Your task to perform on an android device: Search for corsair k70 on bestbuy.com, select the first entry, add it to the cart, then select checkout. Image 0: 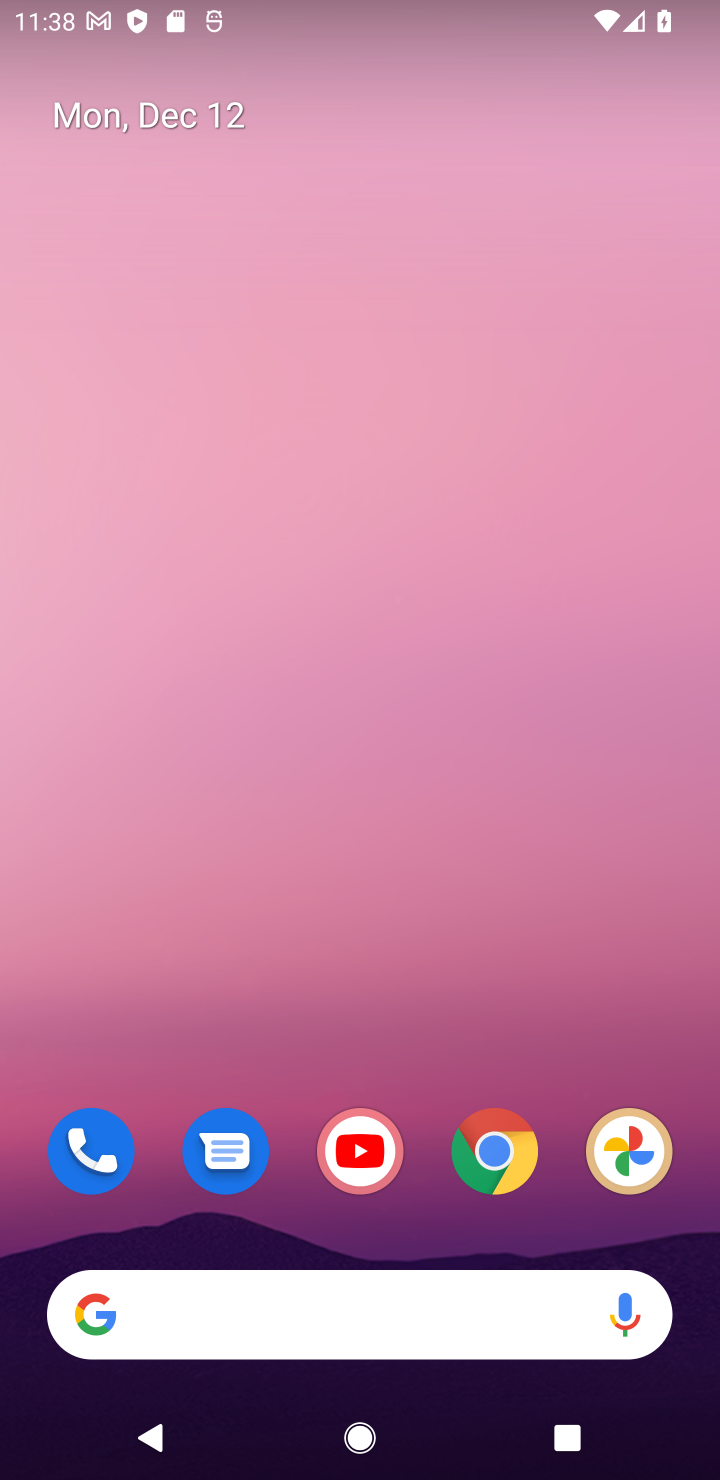
Step 0: press home button
Your task to perform on an android device: Search for corsair k70 on bestbuy.com, select the first entry, add it to the cart, then select checkout. Image 1: 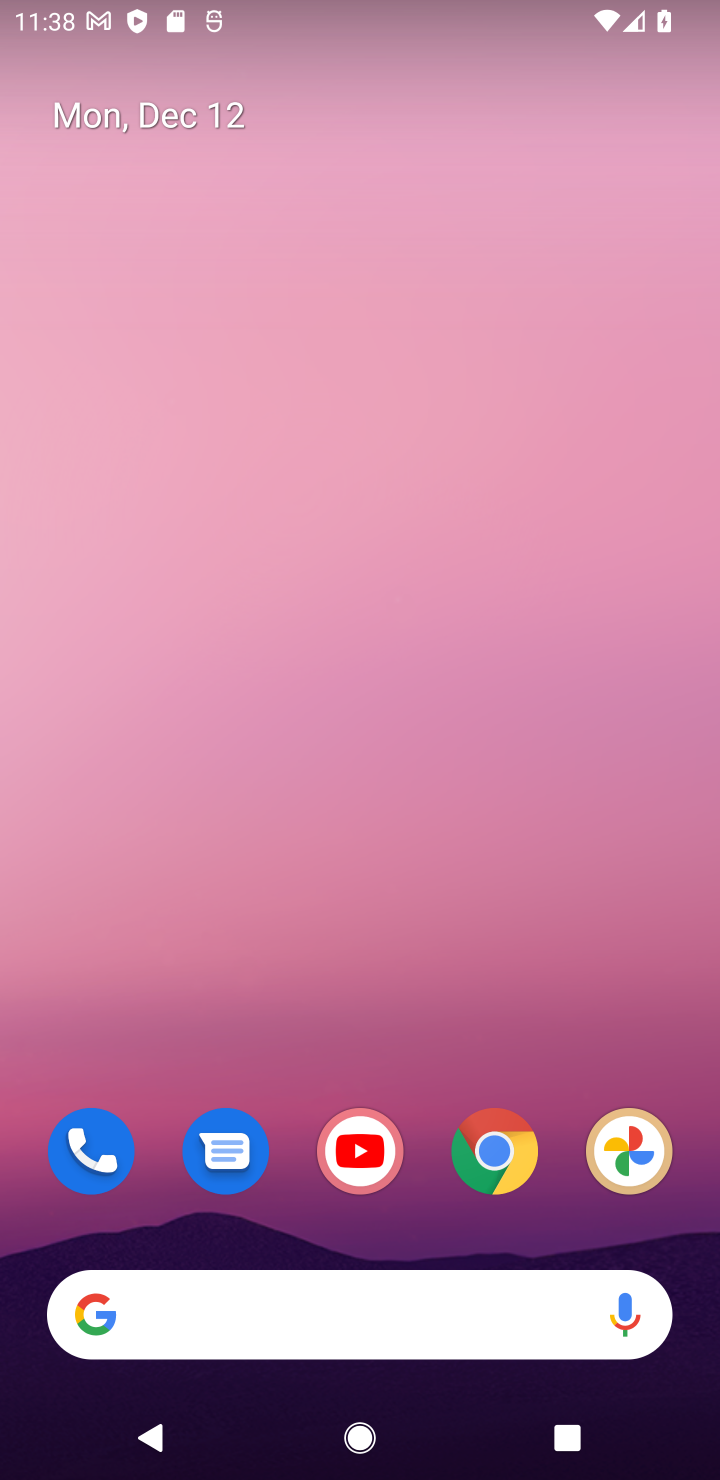
Step 1: drag from (283, 1100) to (290, 193)
Your task to perform on an android device: Search for corsair k70 on bestbuy.com, select the first entry, add it to the cart, then select checkout. Image 2: 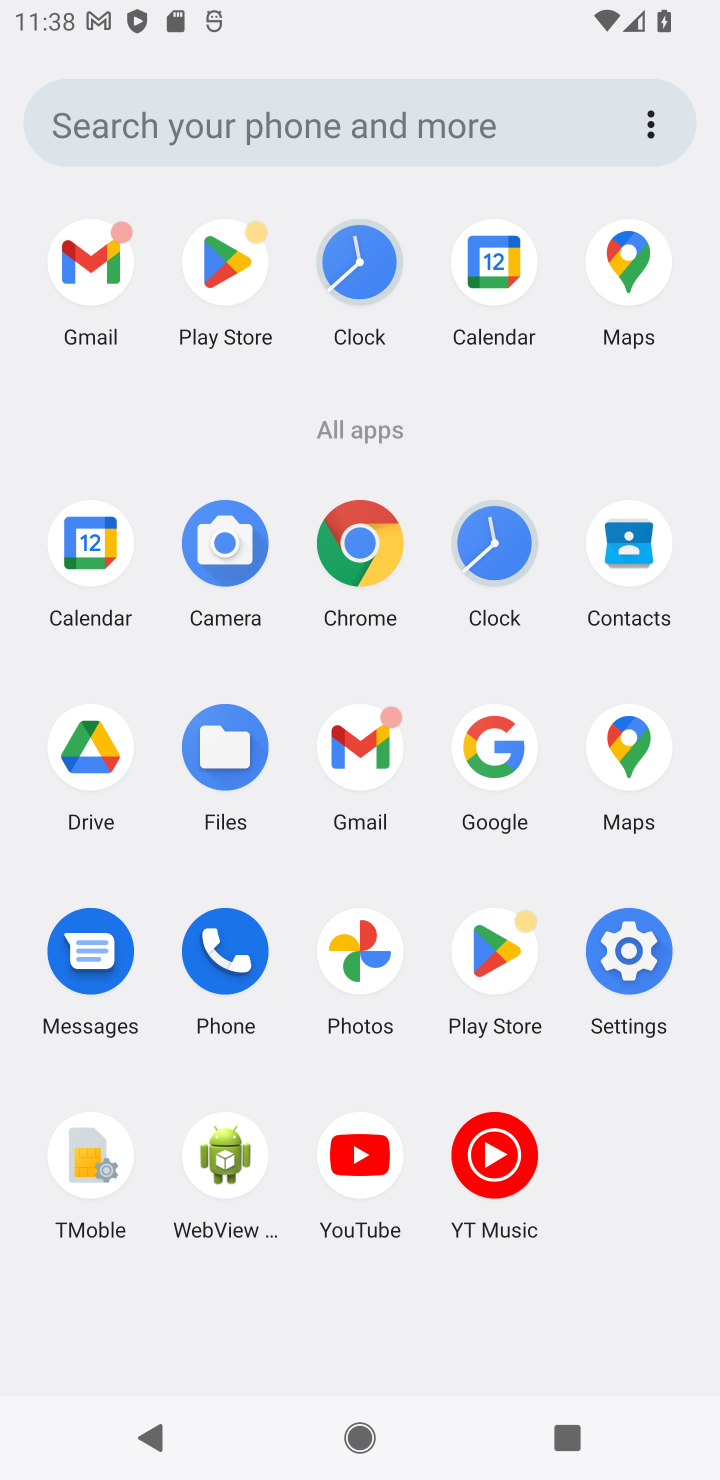
Step 2: click (475, 748)
Your task to perform on an android device: Search for corsair k70 on bestbuy.com, select the first entry, add it to the cart, then select checkout. Image 3: 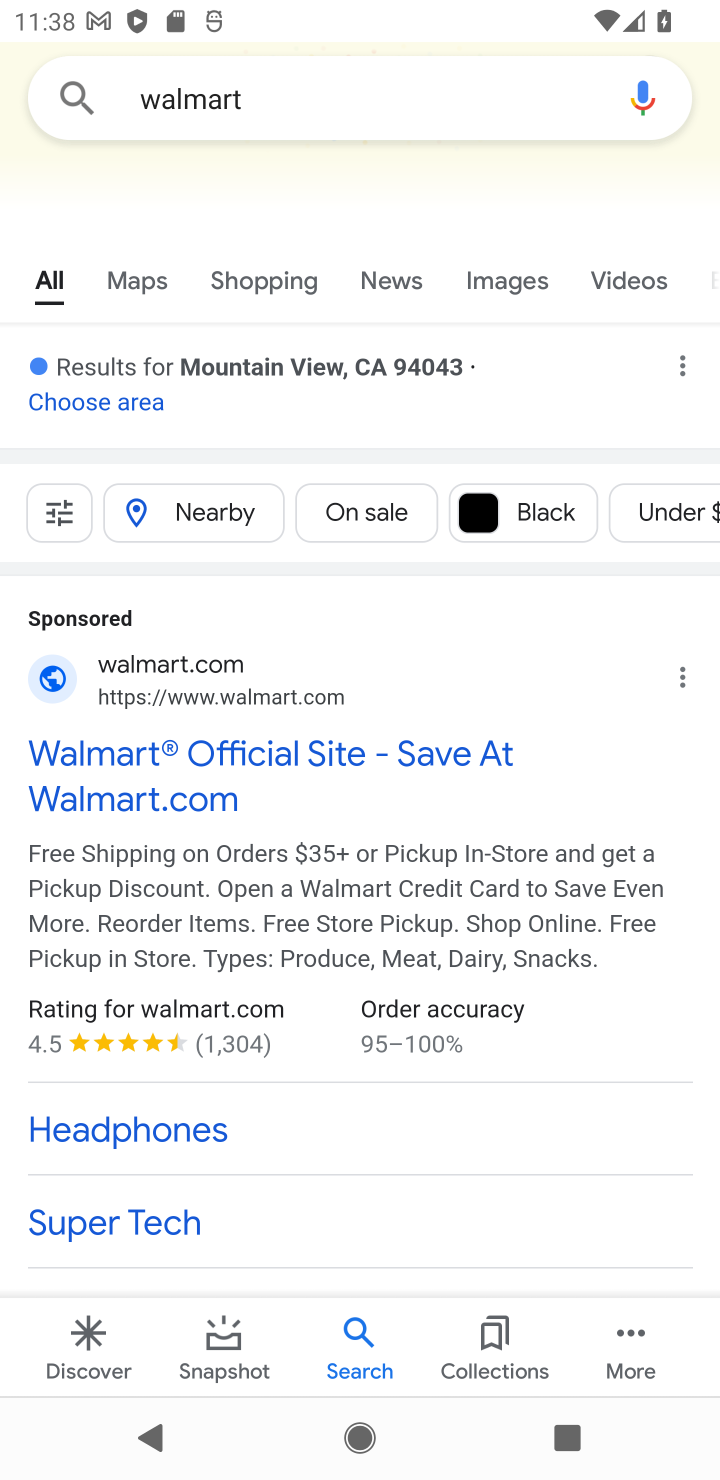
Step 3: click (249, 99)
Your task to perform on an android device: Search for corsair k70 on bestbuy.com, select the first entry, add it to the cart, then select checkout. Image 4: 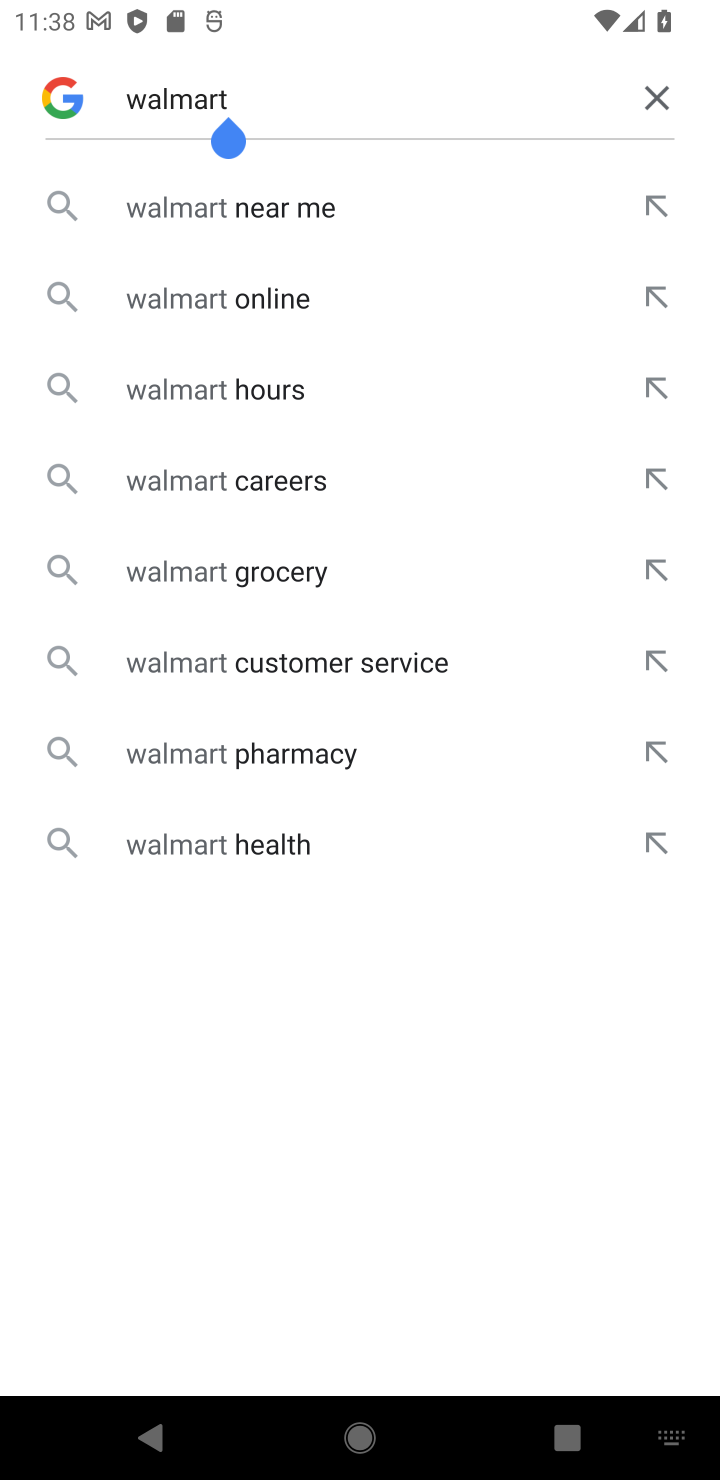
Step 4: click (657, 106)
Your task to perform on an android device: Search for corsair k70 on bestbuy.com, select the first entry, add it to the cart, then select checkout. Image 5: 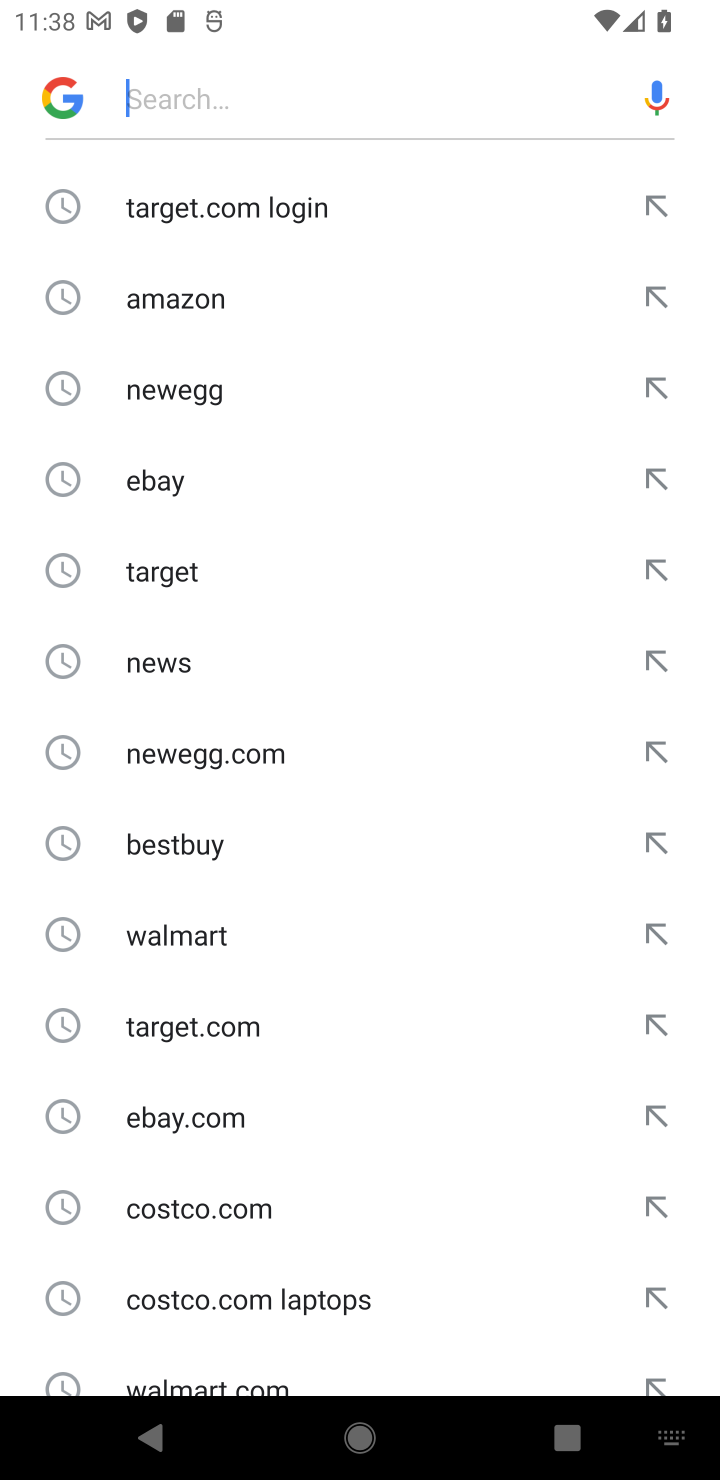
Step 5: click (174, 847)
Your task to perform on an android device: Search for corsair k70 on bestbuy.com, select the first entry, add it to the cart, then select checkout. Image 6: 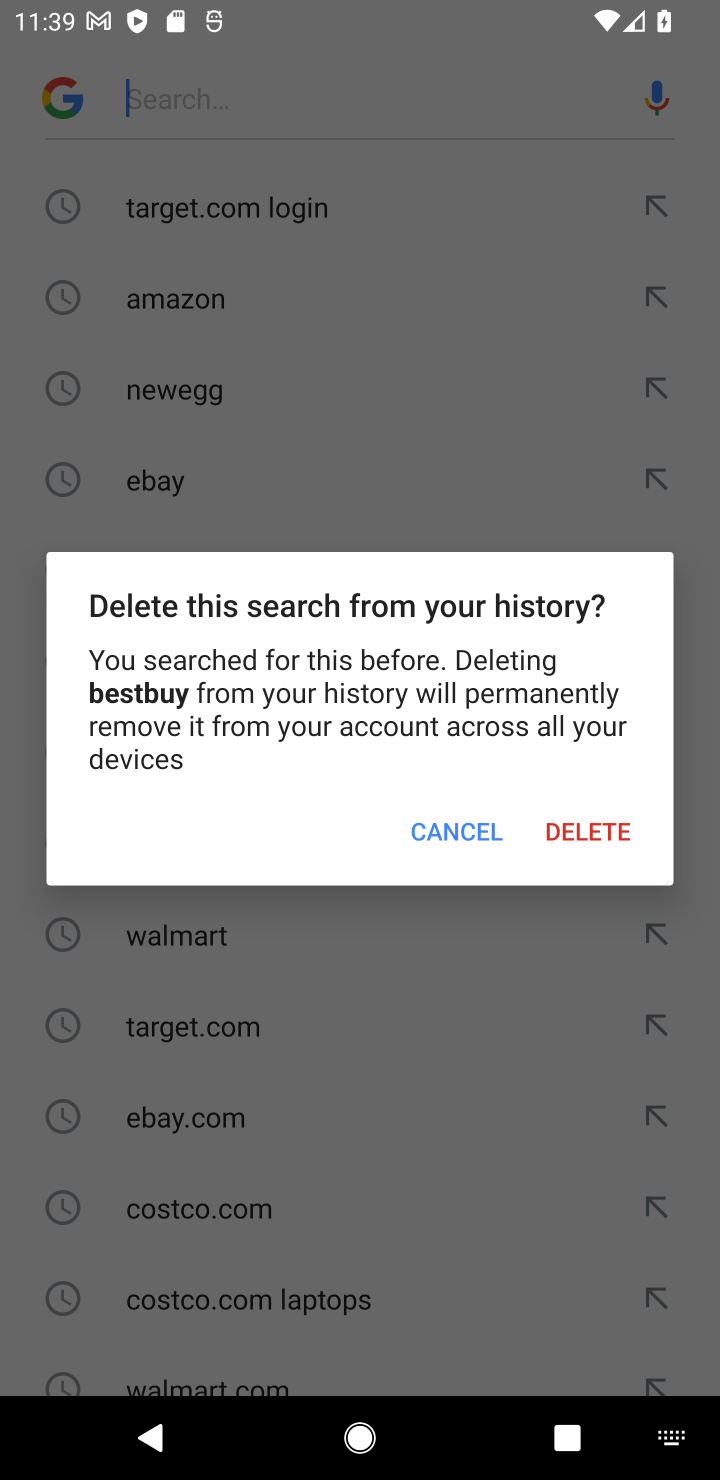
Step 6: click (482, 818)
Your task to perform on an android device: Search for corsair k70 on bestbuy.com, select the first entry, add it to the cart, then select checkout. Image 7: 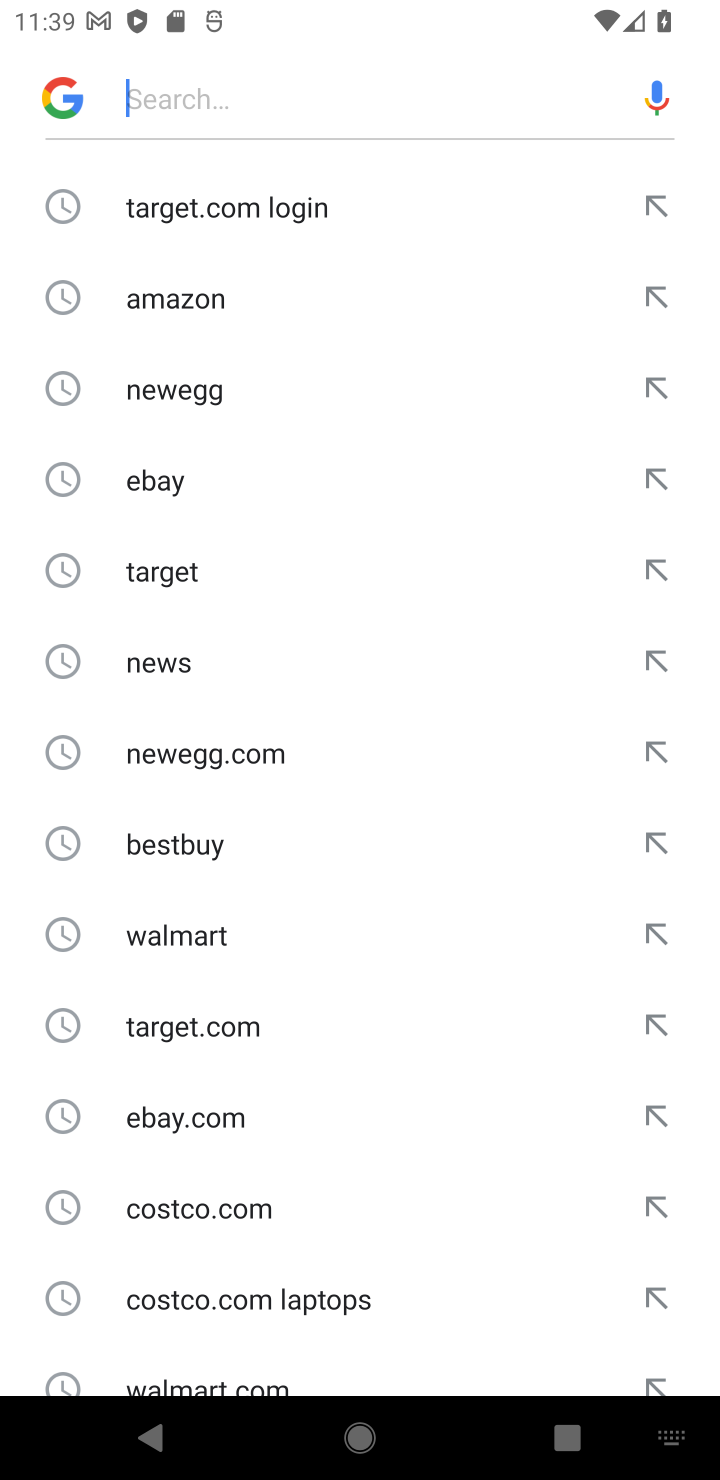
Step 7: click (192, 841)
Your task to perform on an android device: Search for corsair k70 on bestbuy.com, select the first entry, add it to the cart, then select checkout. Image 8: 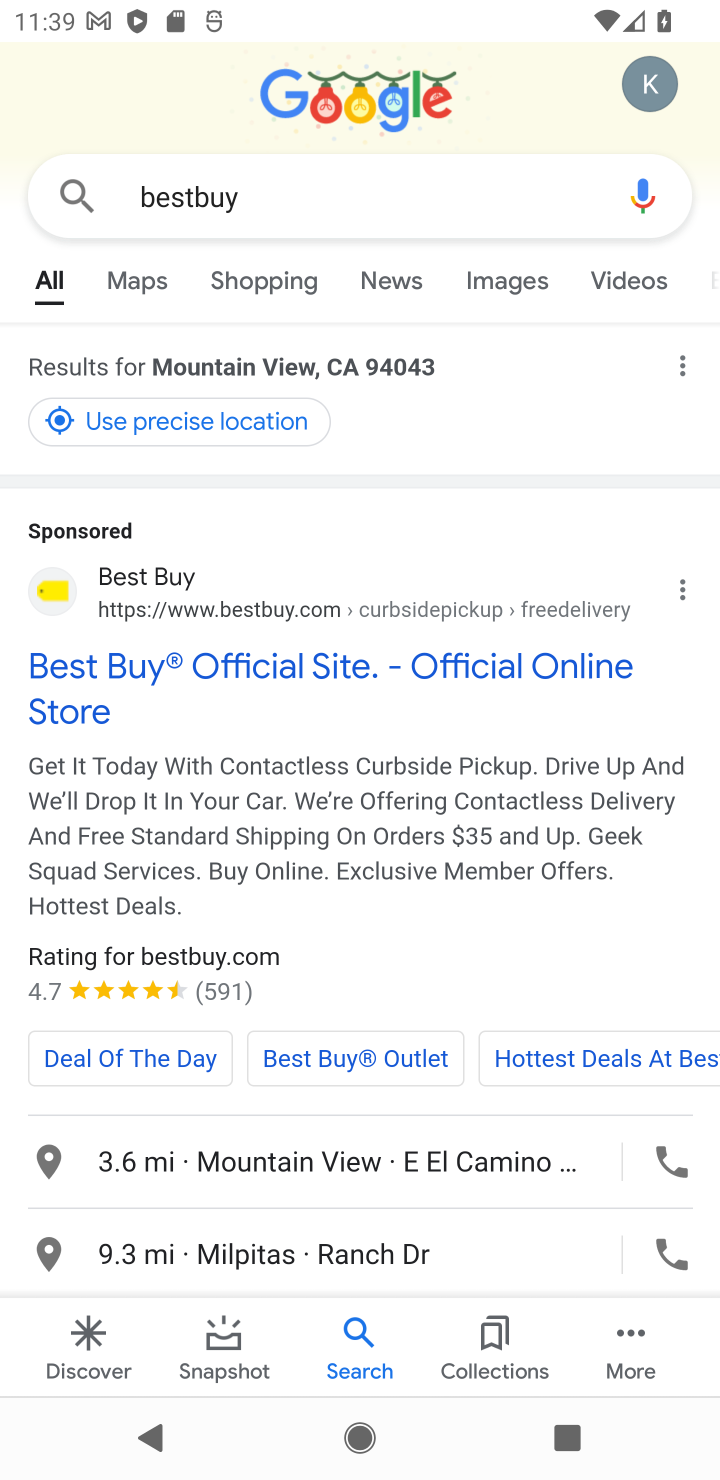
Step 8: click (201, 662)
Your task to perform on an android device: Search for corsair k70 on bestbuy.com, select the first entry, add it to the cart, then select checkout. Image 9: 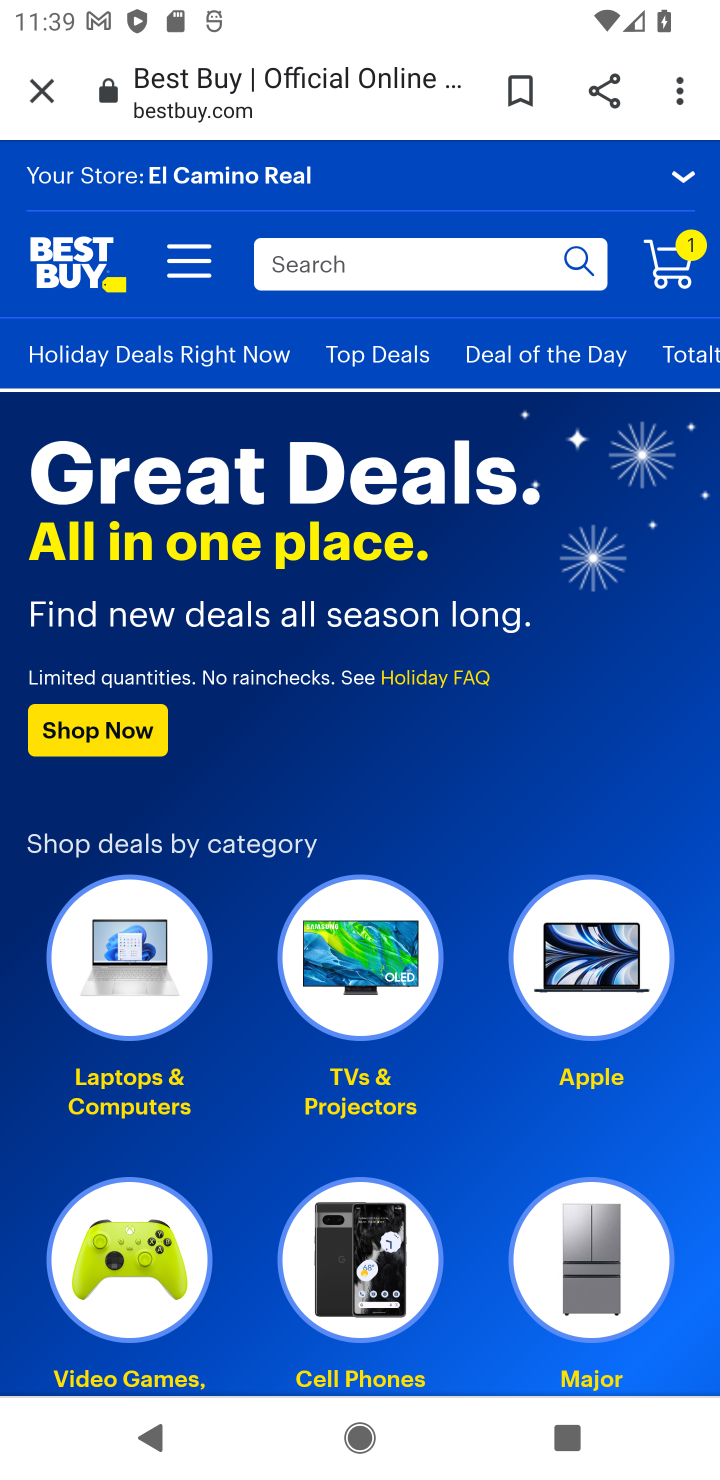
Step 9: click (414, 269)
Your task to perform on an android device: Search for corsair k70 on bestbuy.com, select the first entry, add it to the cart, then select checkout. Image 10: 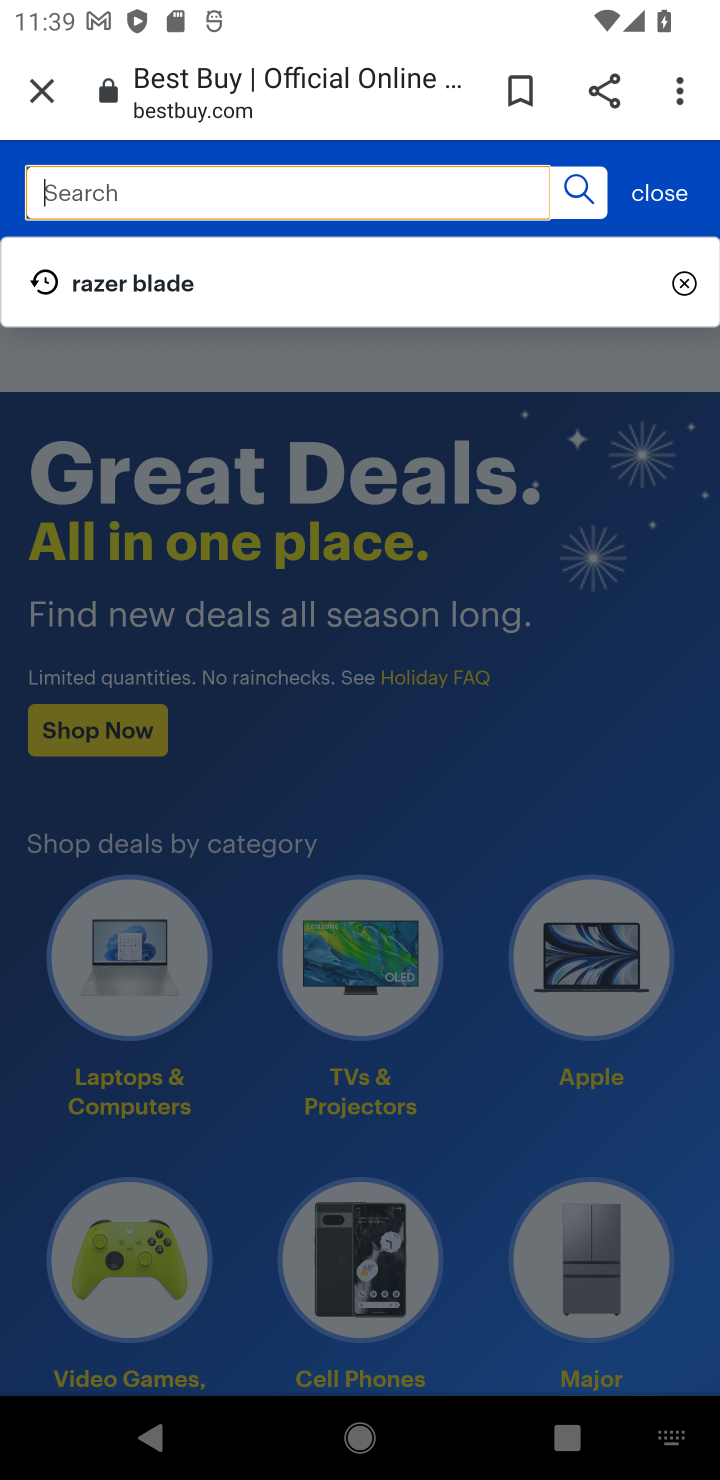
Step 10: type "corsair k70"
Your task to perform on an android device: Search for corsair k70 on bestbuy.com, select the first entry, add it to the cart, then select checkout. Image 11: 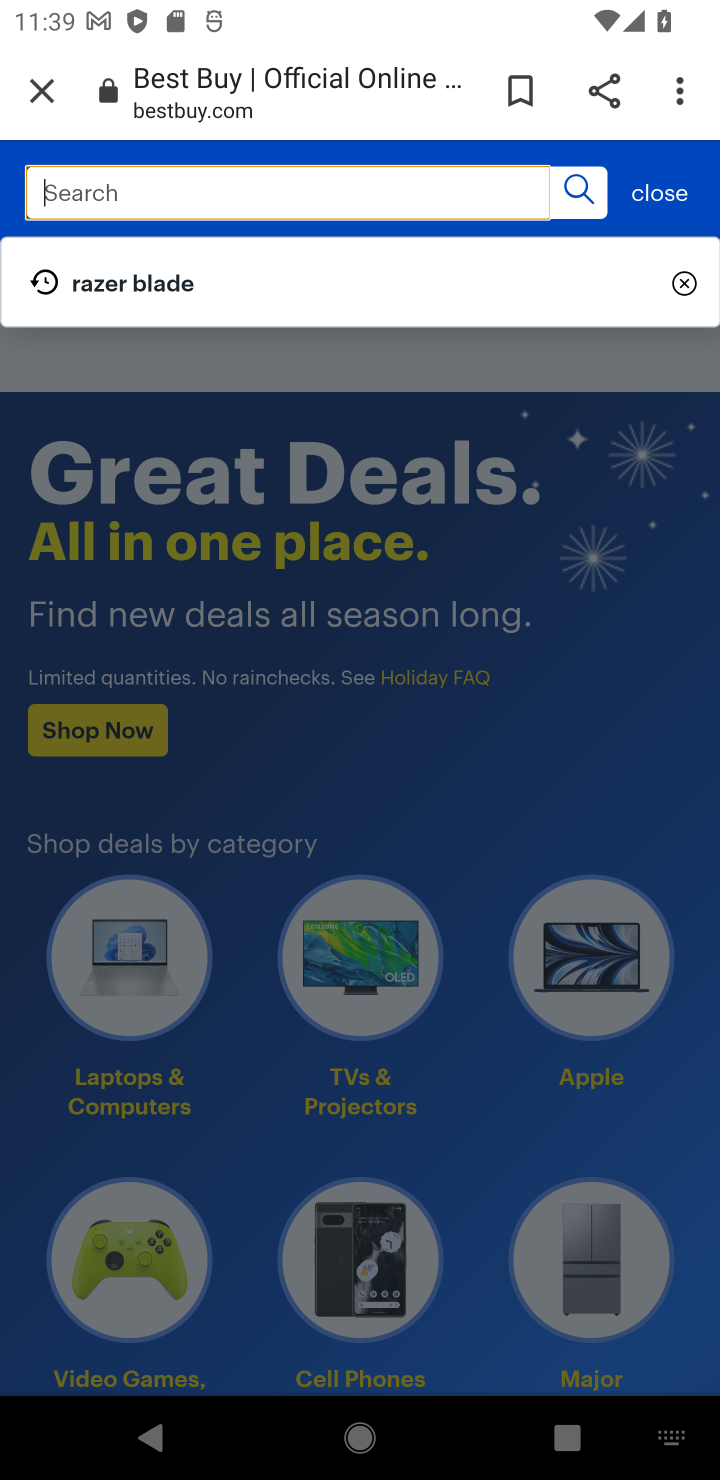
Step 11: click (578, 194)
Your task to perform on an android device: Search for corsair k70 on bestbuy.com, select the first entry, add it to the cart, then select checkout. Image 12: 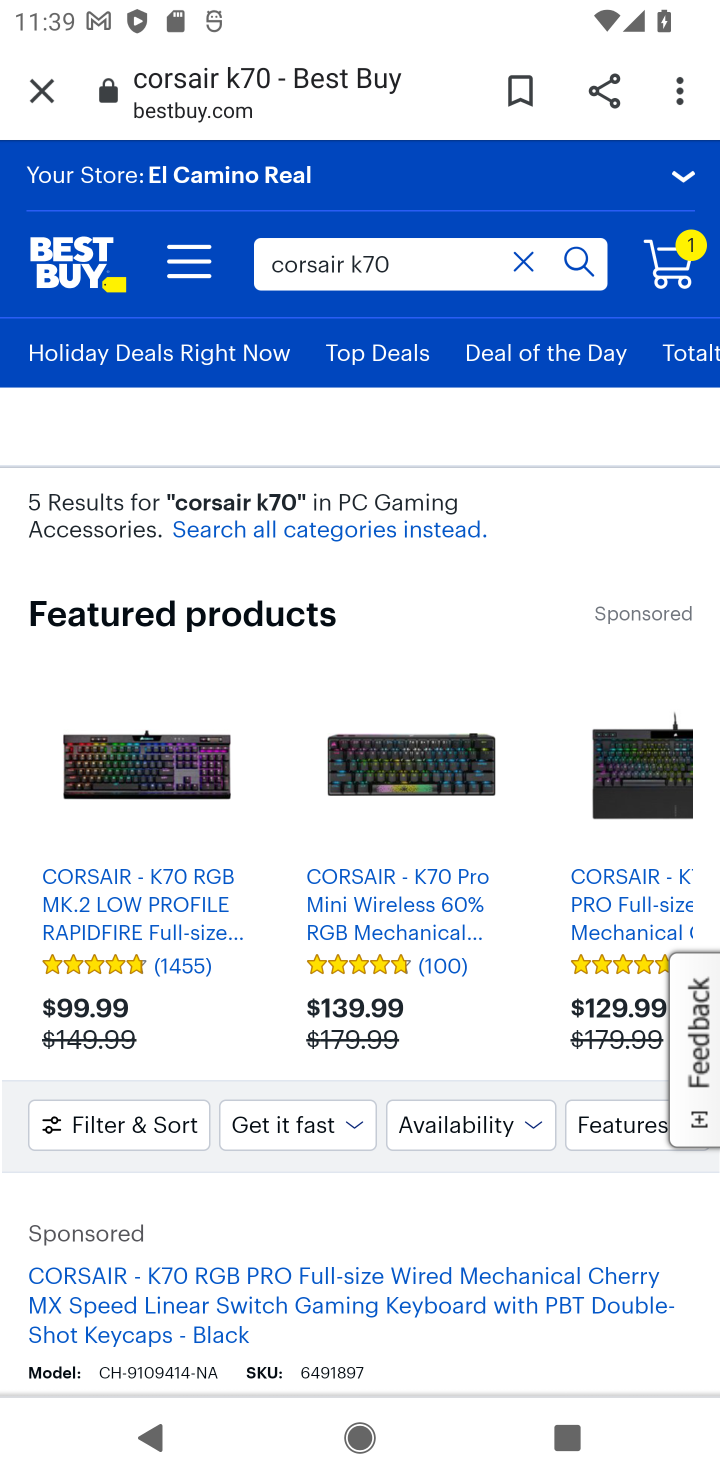
Step 12: drag from (381, 1132) to (453, 535)
Your task to perform on an android device: Search for corsair k70 on bestbuy.com, select the first entry, add it to the cart, then select checkout. Image 13: 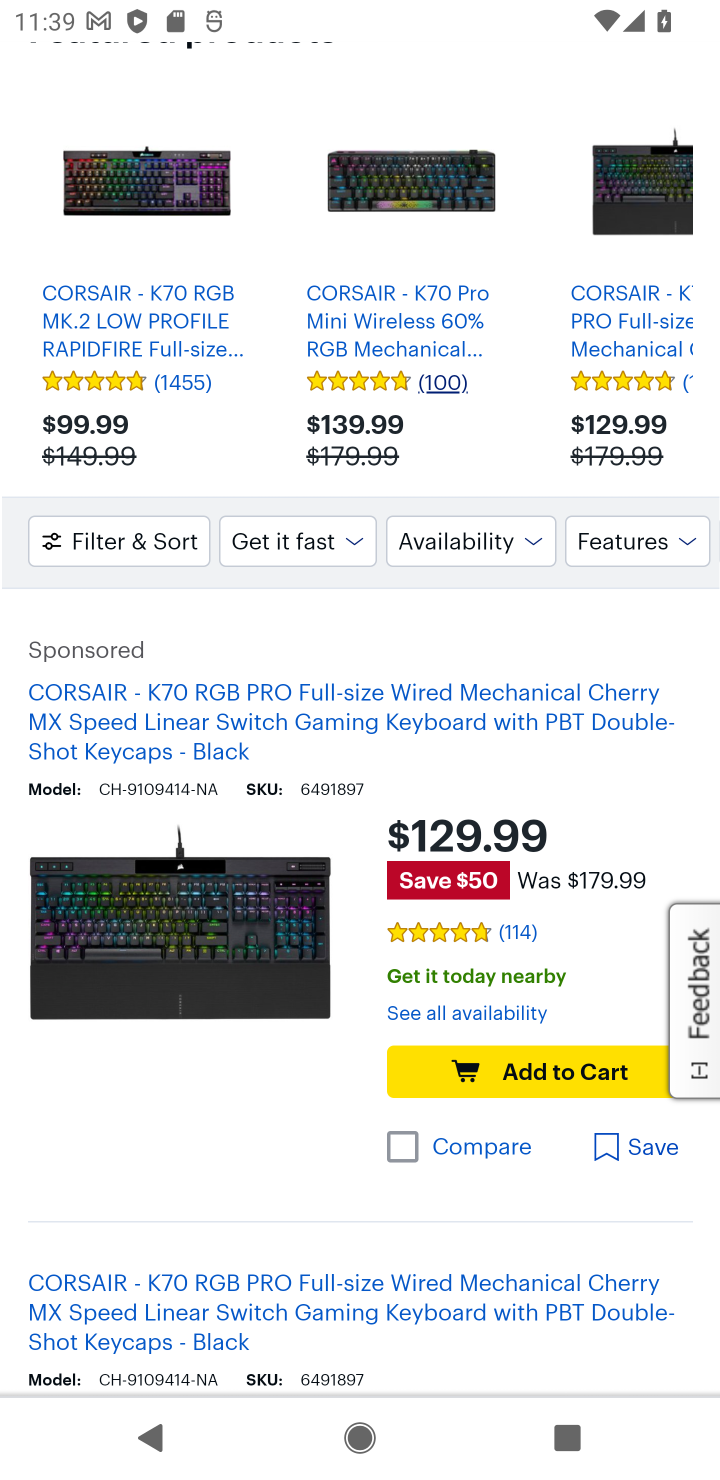
Step 13: click (551, 1067)
Your task to perform on an android device: Search for corsair k70 on bestbuy.com, select the first entry, add it to the cart, then select checkout. Image 14: 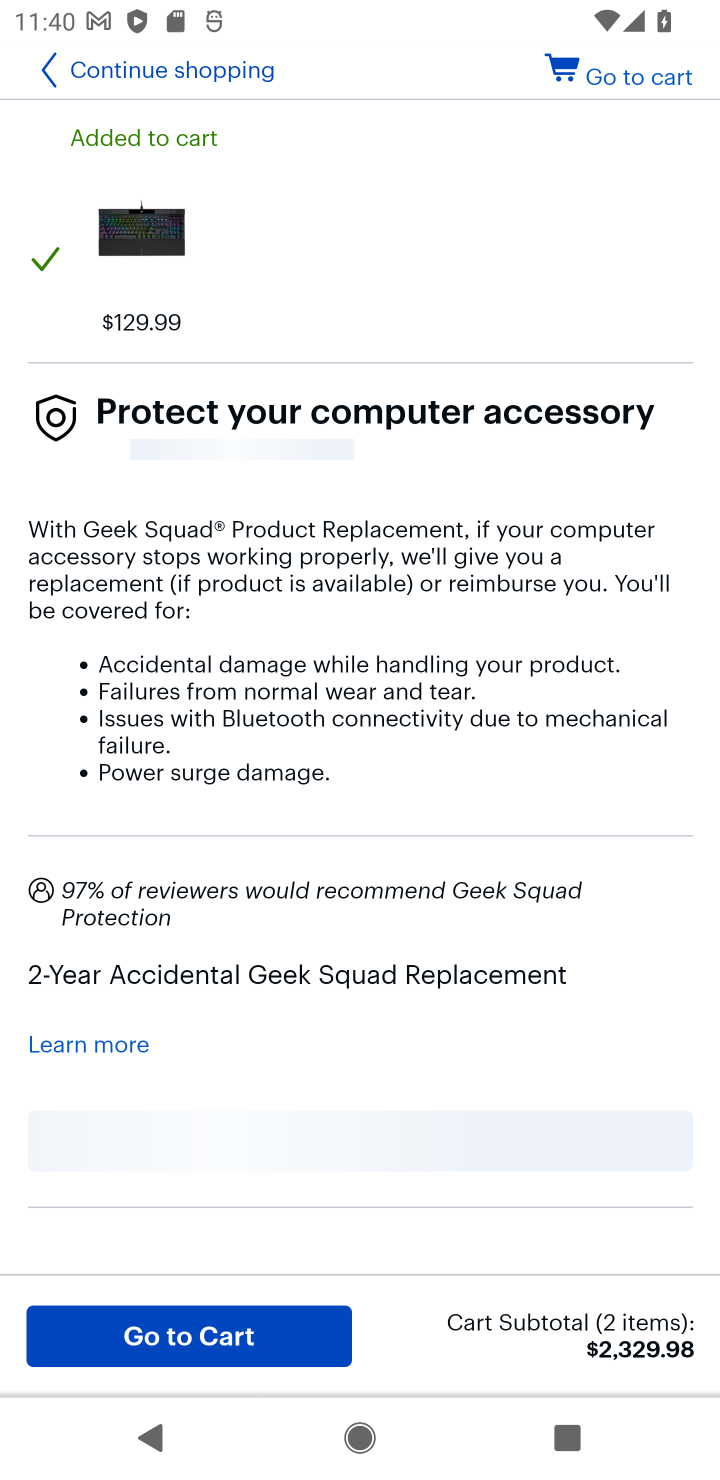
Step 14: click (234, 1340)
Your task to perform on an android device: Search for corsair k70 on bestbuy.com, select the first entry, add it to the cart, then select checkout. Image 15: 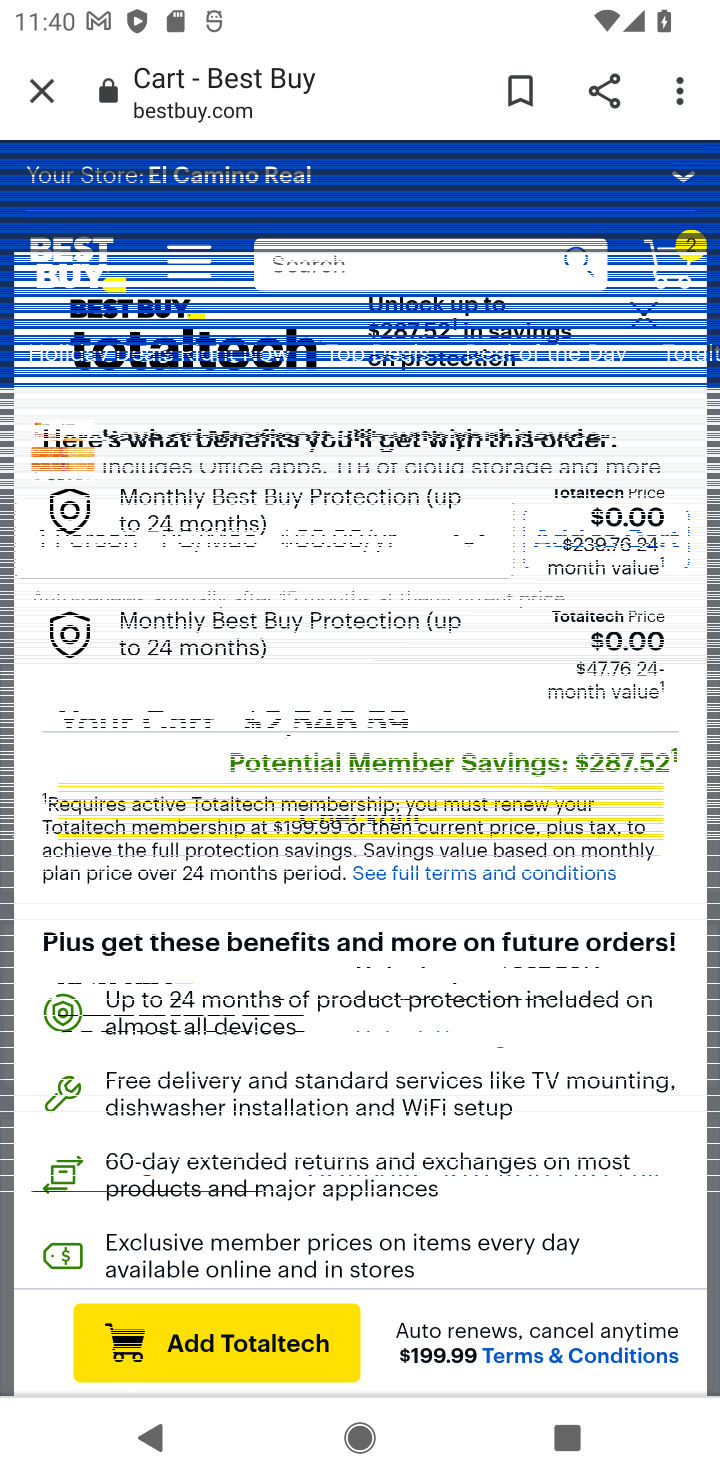
Step 15: click (341, 809)
Your task to perform on an android device: Search for corsair k70 on bestbuy.com, select the first entry, add it to the cart, then select checkout. Image 16: 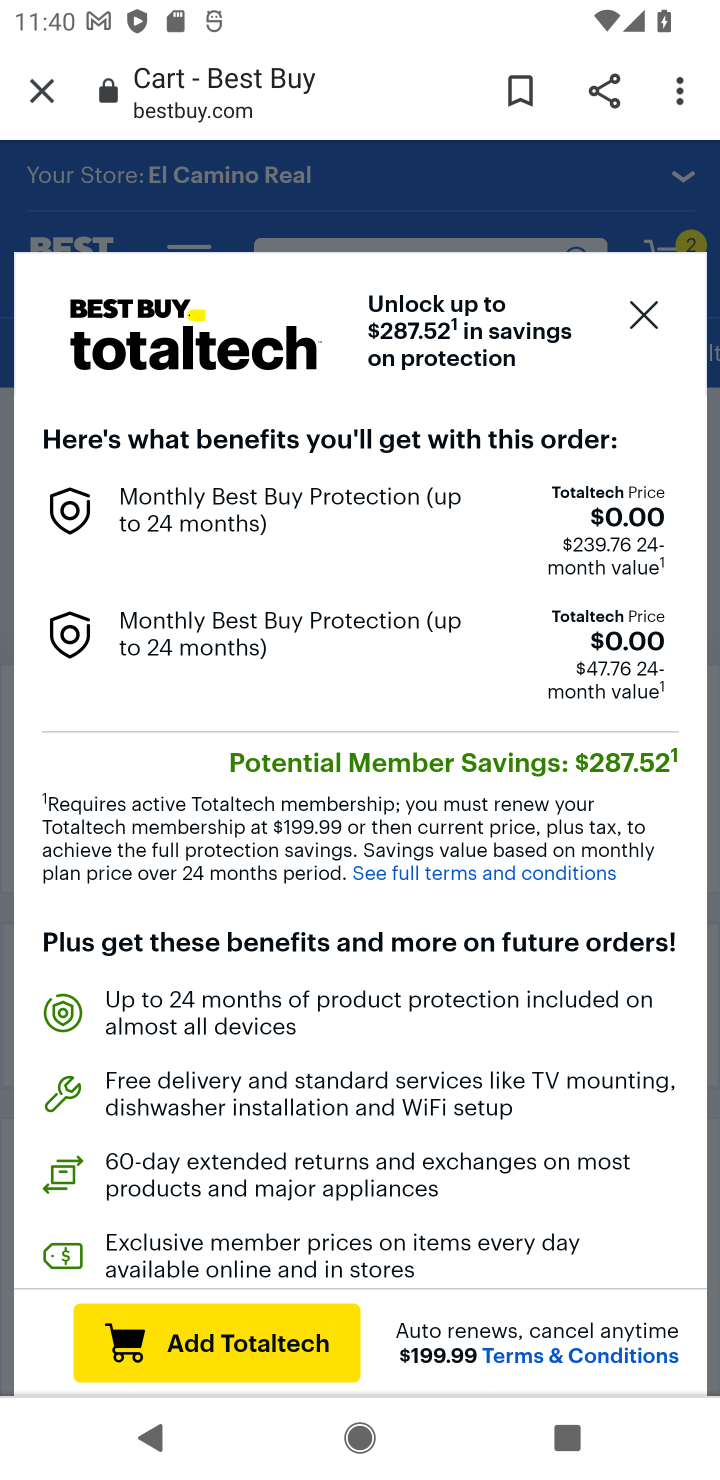
Step 16: click (643, 312)
Your task to perform on an android device: Search for corsair k70 on bestbuy.com, select the first entry, add it to the cart, then select checkout. Image 17: 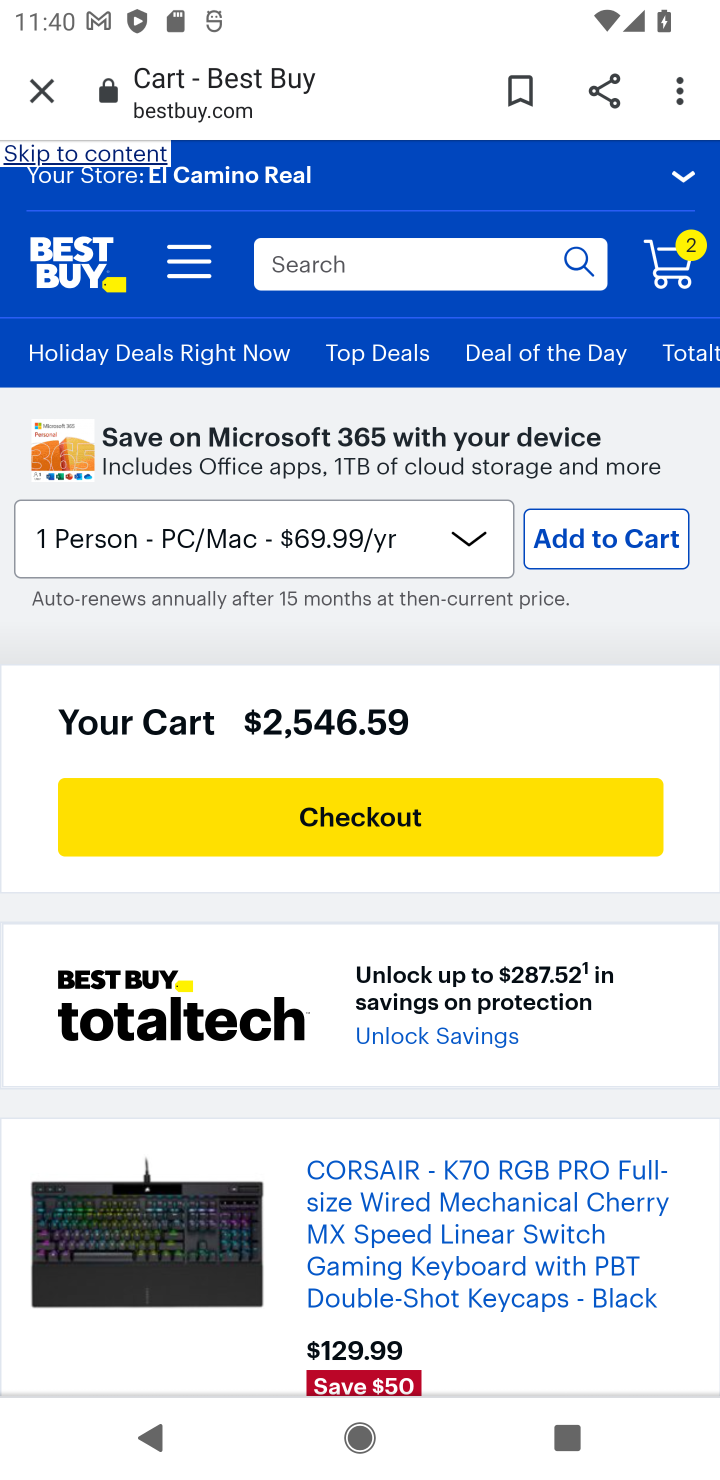
Step 17: click (386, 825)
Your task to perform on an android device: Search for corsair k70 on bestbuy.com, select the first entry, add it to the cart, then select checkout. Image 18: 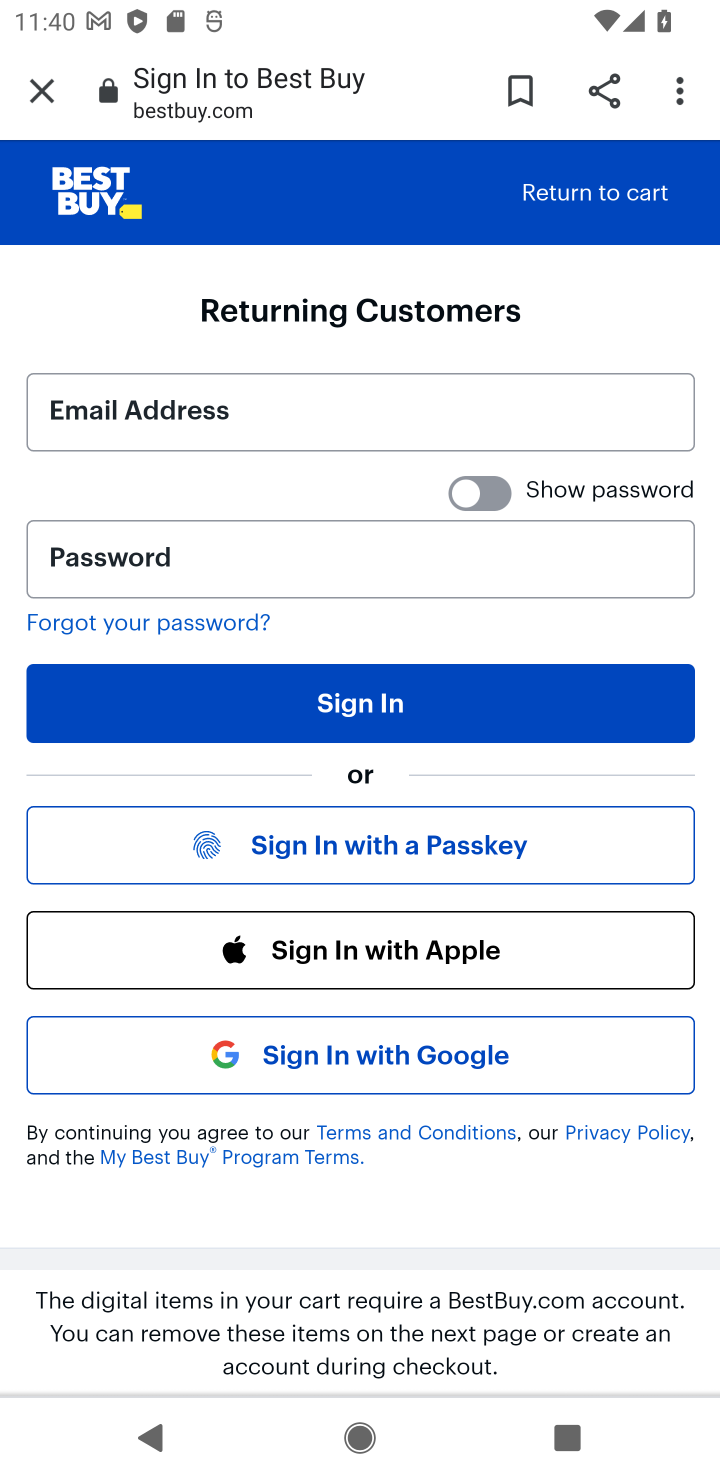
Step 18: task complete